Your task to perform on an android device: Open accessibility settings Image 0: 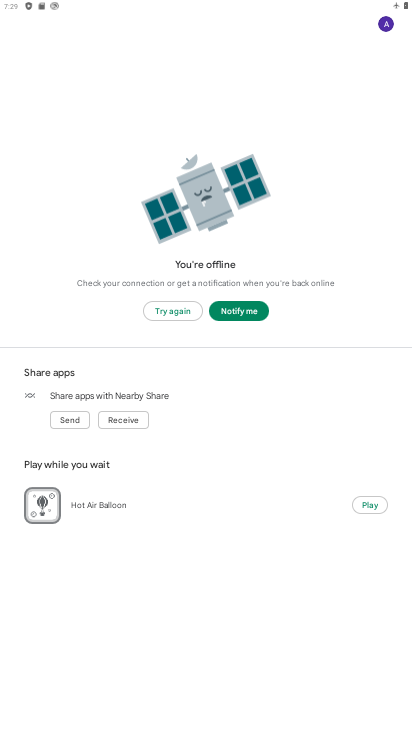
Step 0: press home button
Your task to perform on an android device: Open accessibility settings Image 1: 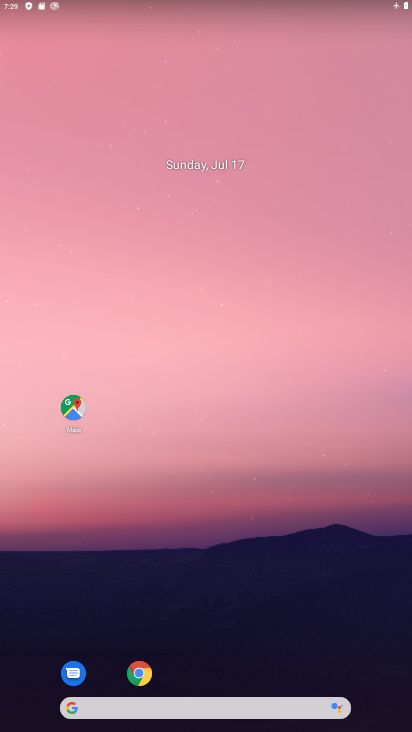
Step 1: drag from (309, 635) to (268, 198)
Your task to perform on an android device: Open accessibility settings Image 2: 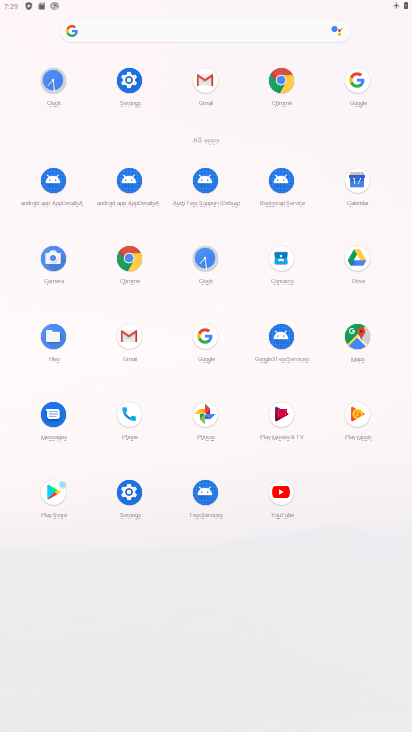
Step 2: click (128, 77)
Your task to perform on an android device: Open accessibility settings Image 3: 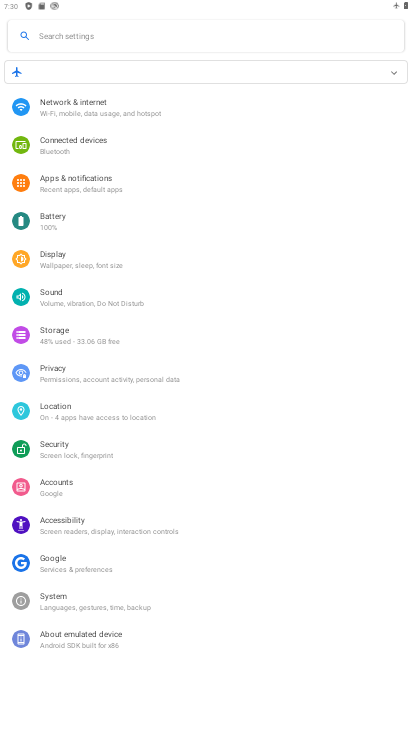
Step 3: click (65, 524)
Your task to perform on an android device: Open accessibility settings Image 4: 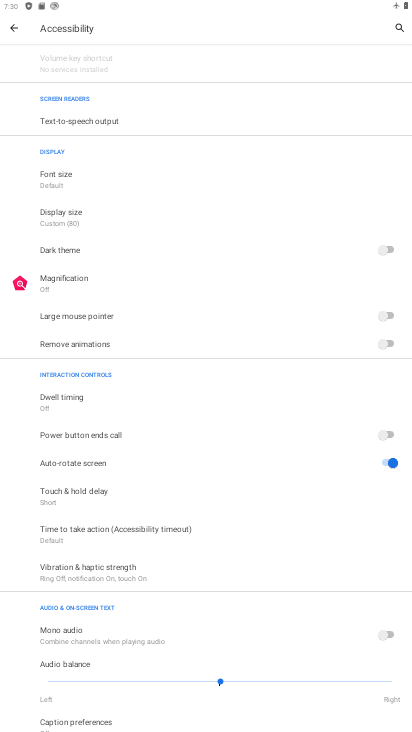
Step 4: task complete